Your task to perform on an android device: toggle sleep mode Image 0: 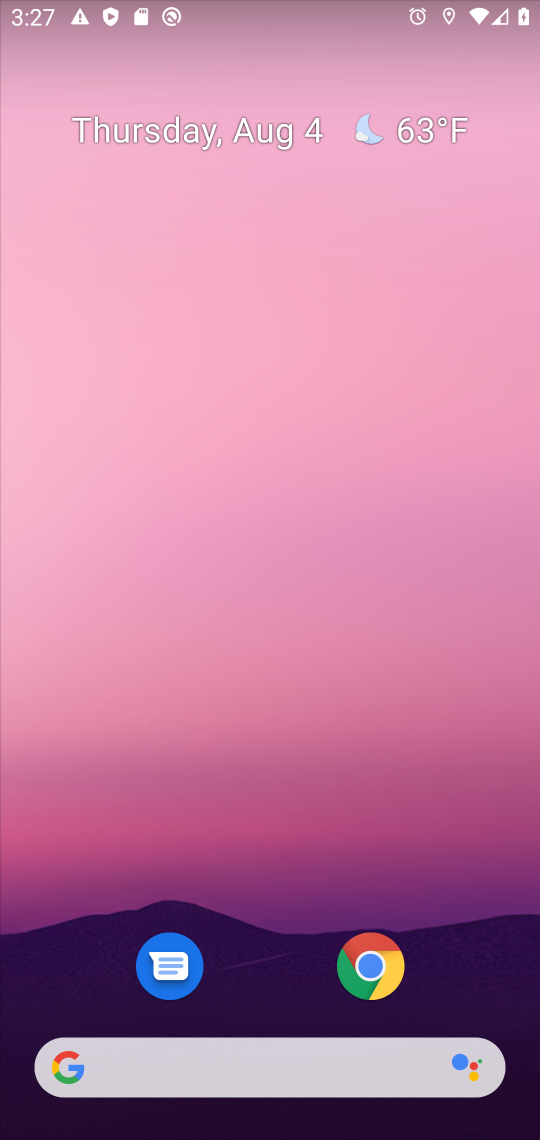
Step 0: drag from (290, 951) to (263, 243)
Your task to perform on an android device: toggle sleep mode Image 1: 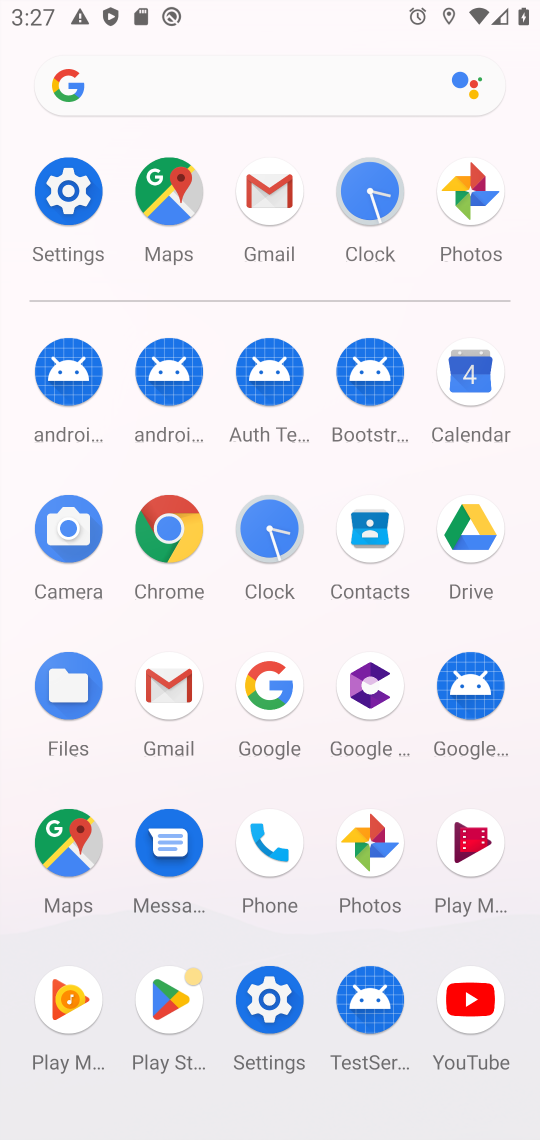
Step 1: click (64, 191)
Your task to perform on an android device: toggle sleep mode Image 2: 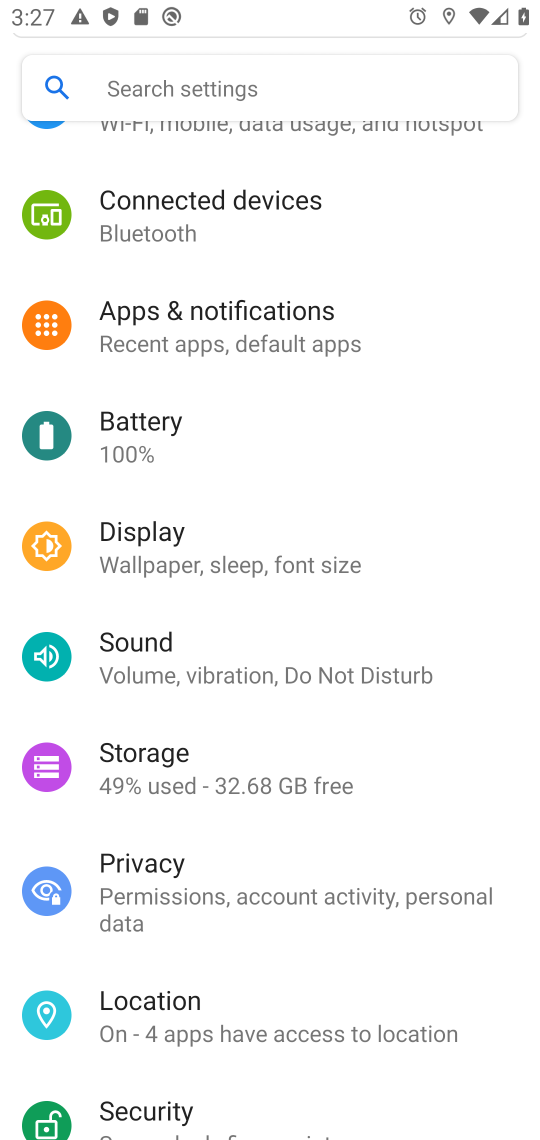
Step 2: click (131, 563)
Your task to perform on an android device: toggle sleep mode Image 3: 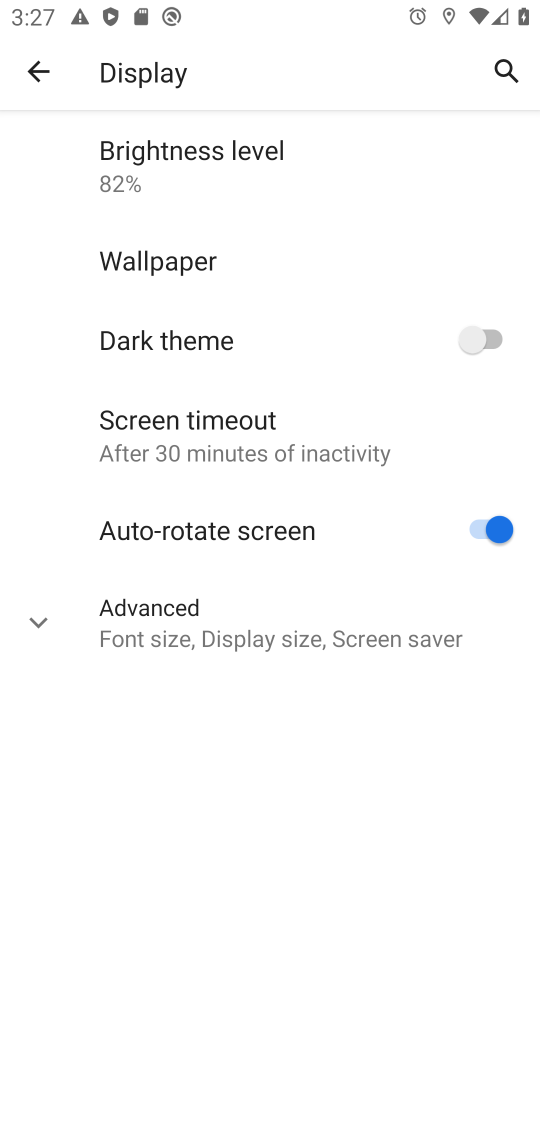
Step 3: task complete